Your task to perform on an android device: Go to Android settings Image 0: 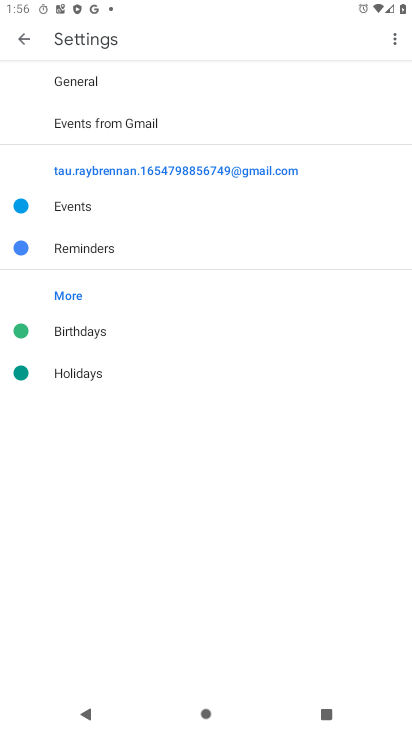
Step 0: press home button
Your task to perform on an android device: Go to Android settings Image 1: 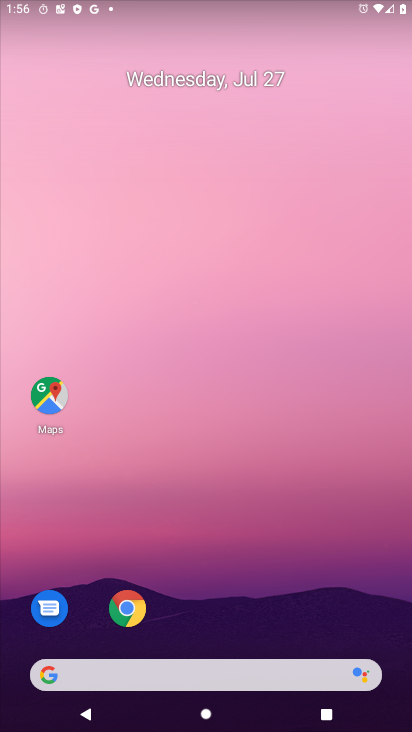
Step 1: click (213, 254)
Your task to perform on an android device: Go to Android settings Image 2: 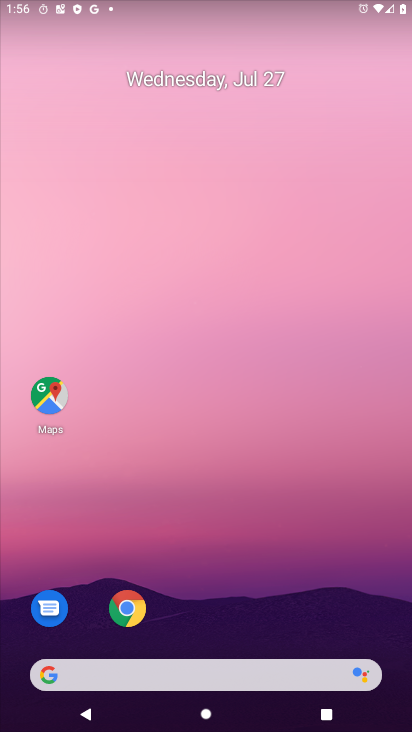
Step 2: drag from (268, 31) to (259, 153)
Your task to perform on an android device: Go to Android settings Image 3: 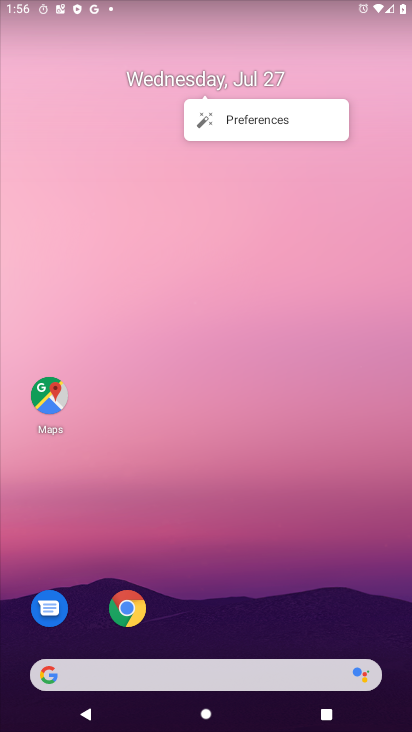
Step 3: drag from (203, 601) to (208, 95)
Your task to perform on an android device: Go to Android settings Image 4: 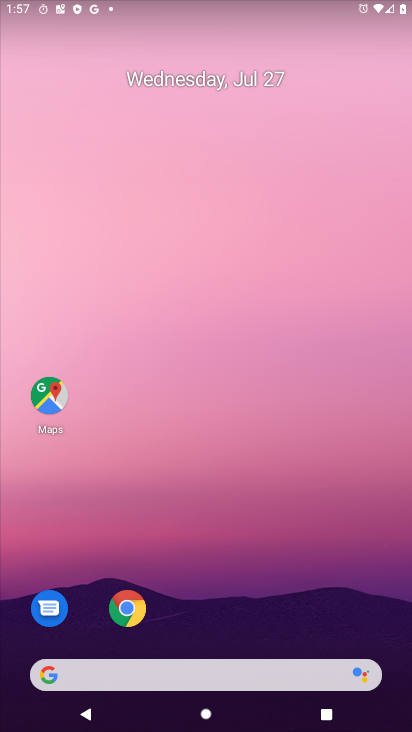
Step 4: drag from (190, 579) to (253, 191)
Your task to perform on an android device: Go to Android settings Image 5: 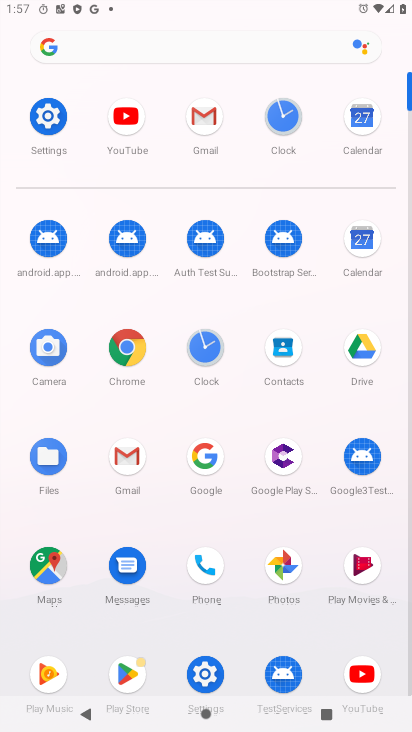
Step 5: click (52, 112)
Your task to perform on an android device: Go to Android settings Image 6: 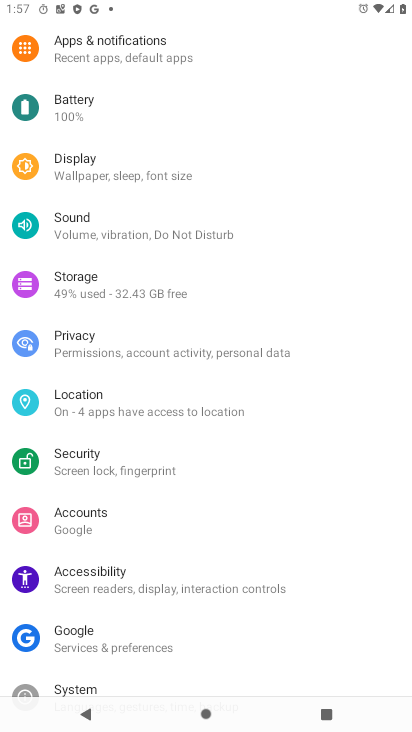
Step 6: drag from (150, 558) to (211, 145)
Your task to perform on an android device: Go to Android settings Image 7: 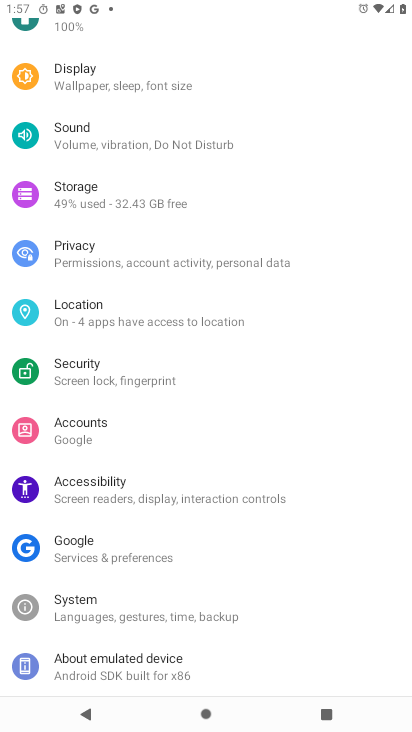
Step 7: click (87, 669)
Your task to perform on an android device: Go to Android settings Image 8: 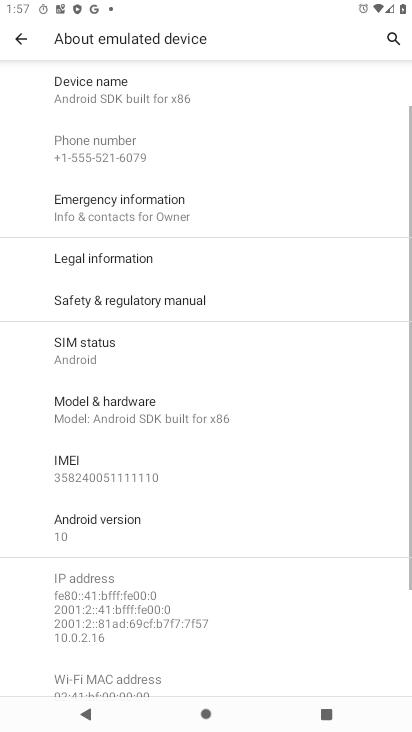
Step 8: click (123, 524)
Your task to perform on an android device: Go to Android settings Image 9: 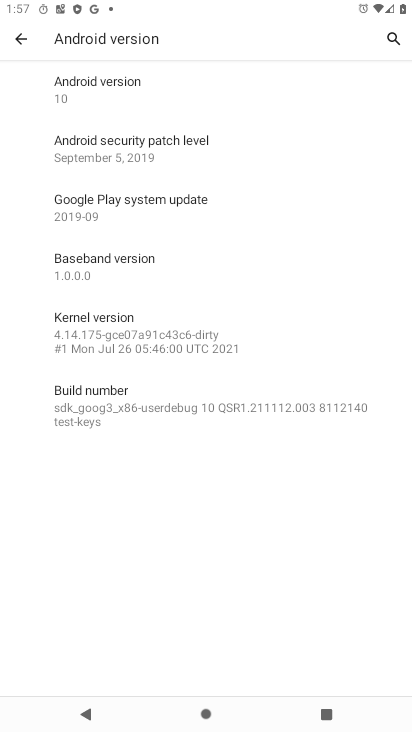
Step 9: task complete